Your task to perform on an android device: Open Google Chrome and click the shortcut for Amazon.com Image 0: 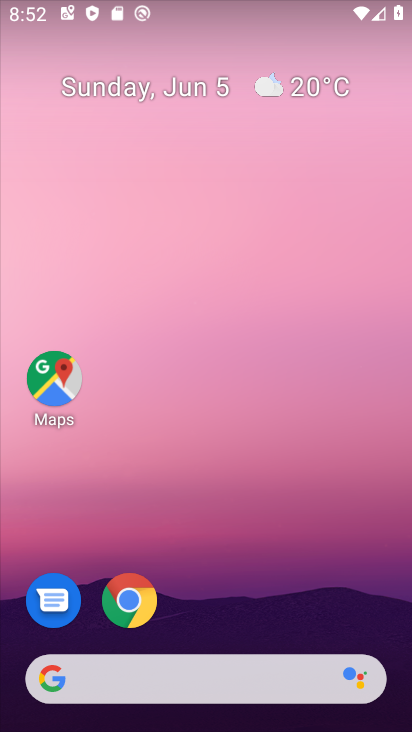
Step 0: click (144, 598)
Your task to perform on an android device: Open Google Chrome and click the shortcut for Amazon.com Image 1: 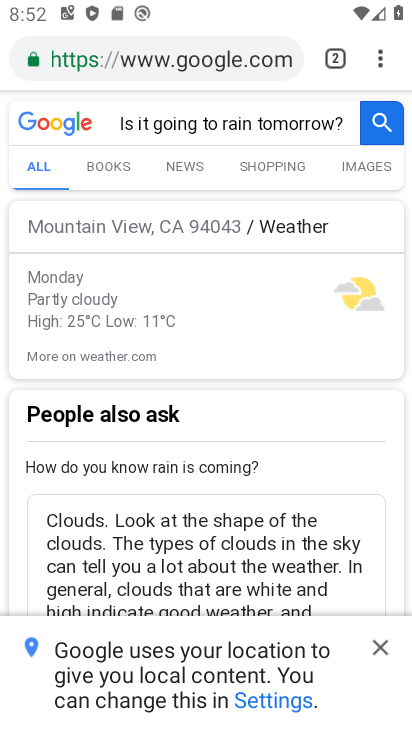
Step 1: click (377, 61)
Your task to perform on an android device: Open Google Chrome and click the shortcut for Amazon.com Image 2: 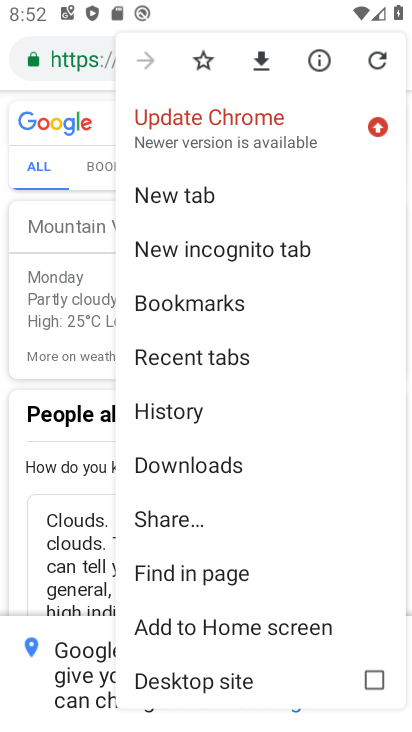
Step 2: click (256, 185)
Your task to perform on an android device: Open Google Chrome and click the shortcut for Amazon.com Image 3: 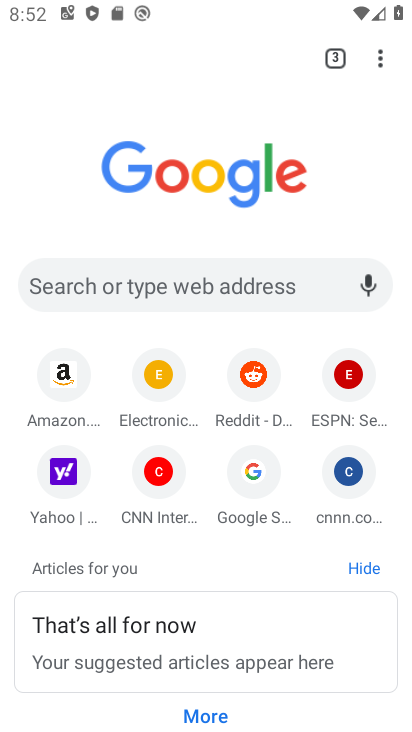
Step 3: click (61, 367)
Your task to perform on an android device: Open Google Chrome and click the shortcut for Amazon.com Image 4: 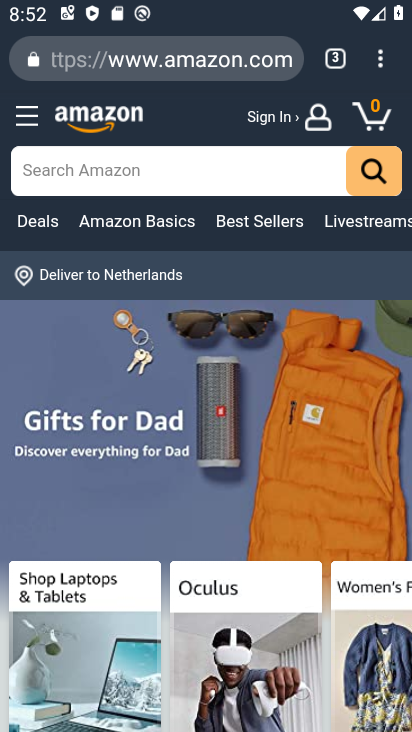
Step 4: task complete